Your task to perform on an android device: turn off location history Image 0: 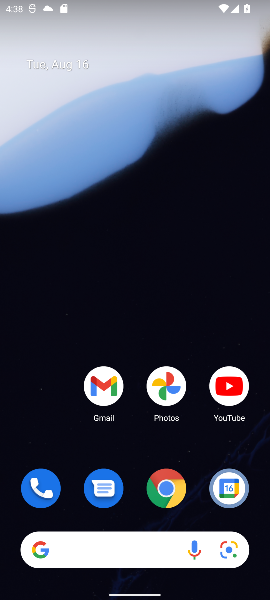
Step 0: drag from (157, 291) to (154, 113)
Your task to perform on an android device: turn off location history Image 1: 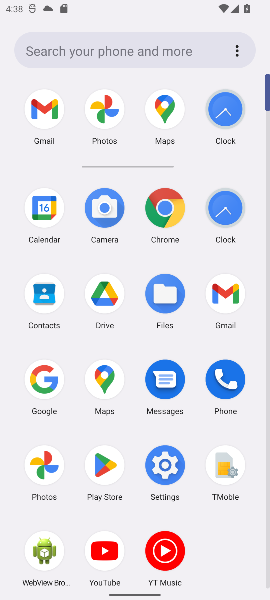
Step 1: click (159, 216)
Your task to perform on an android device: turn off location history Image 2: 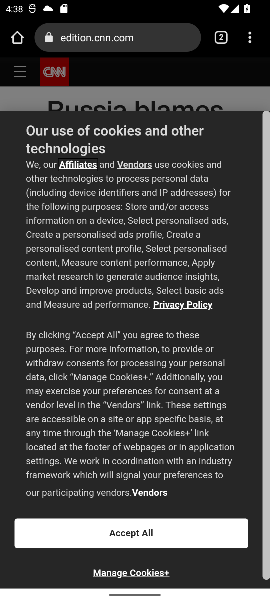
Step 2: task complete